Your task to perform on an android device: Open Chrome and go to settings Image 0: 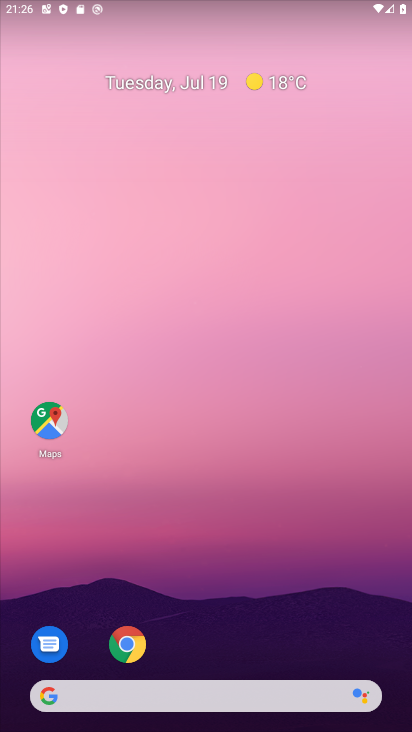
Step 0: drag from (215, 673) to (225, 207)
Your task to perform on an android device: Open Chrome and go to settings Image 1: 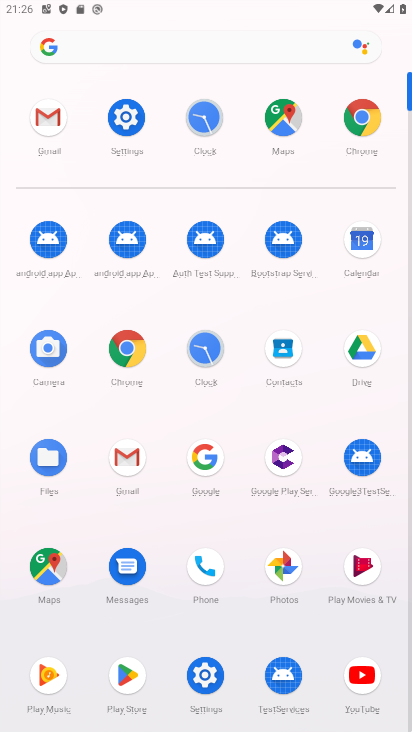
Step 1: click (364, 118)
Your task to perform on an android device: Open Chrome and go to settings Image 2: 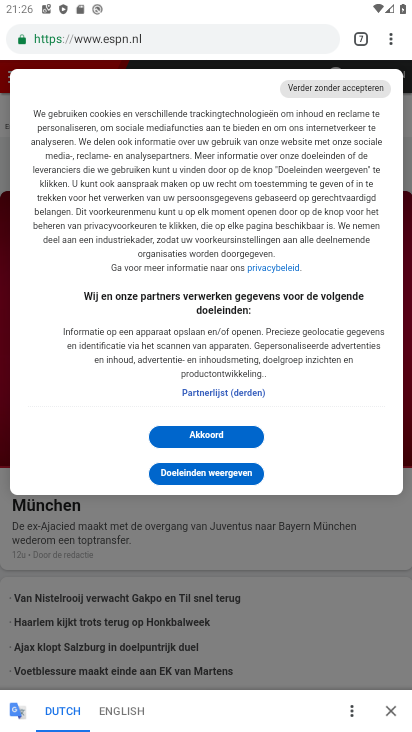
Step 2: click (388, 36)
Your task to perform on an android device: Open Chrome and go to settings Image 3: 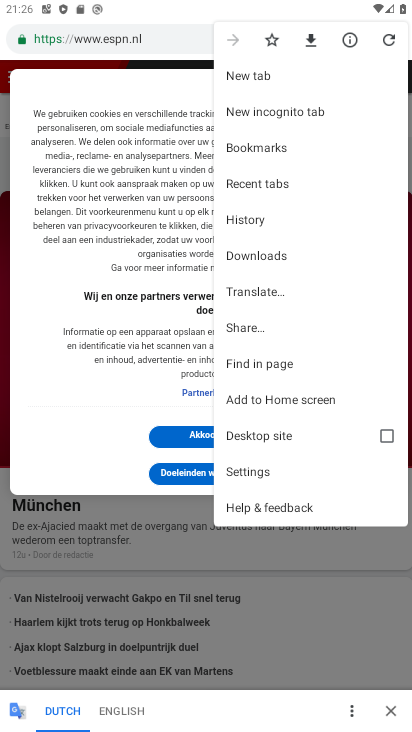
Step 3: click (248, 468)
Your task to perform on an android device: Open Chrome and go to settings Image 4: 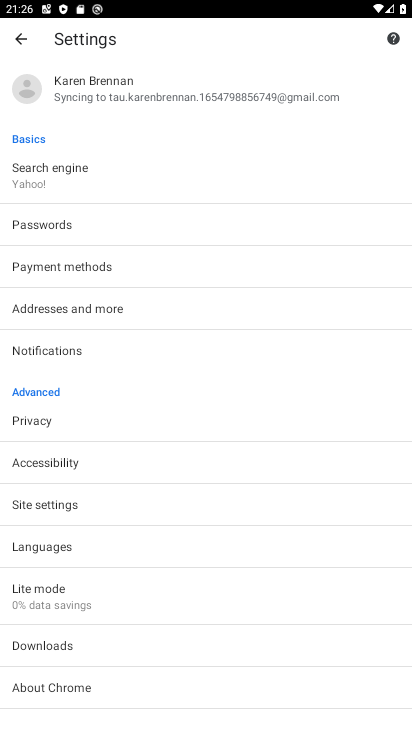
Step 4: task complete